Your task to perform on an android device: open chrome privacy settings Image 0: 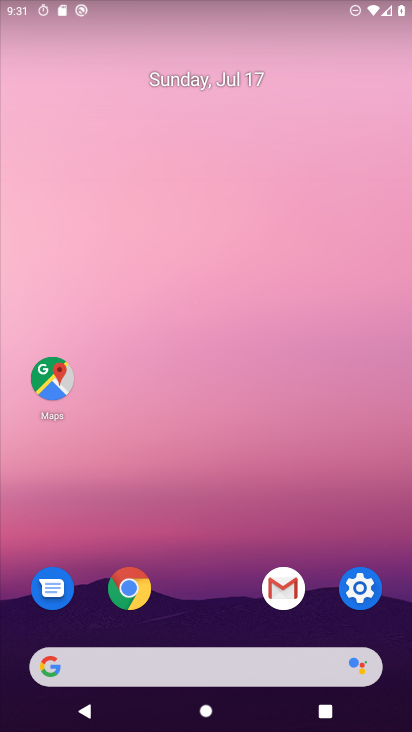
Step 0: click (122, 586)
Your task to perform on an android device: open chrome privacy settings Image 1: 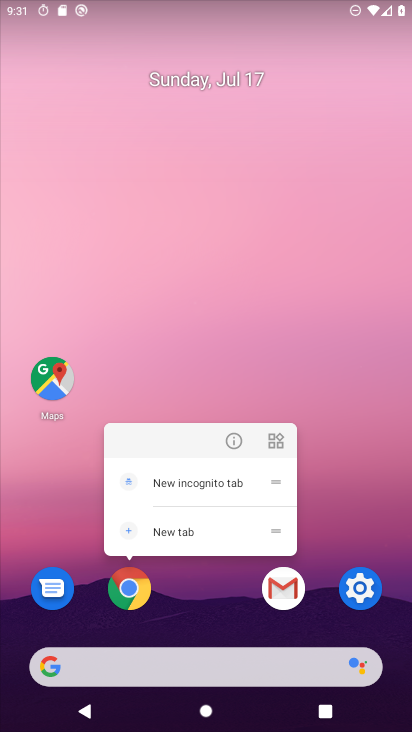
Step 1: click (146, 590)
Your task to perform on an android device: open chrome privacy settings Image 2: 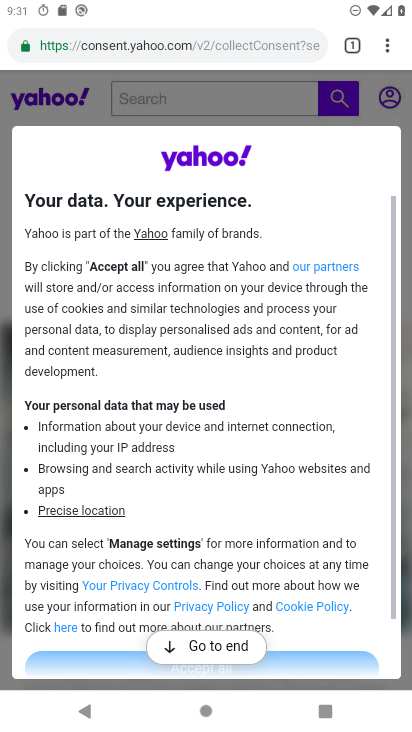
Step 2: click (386, 47)
Your task to perform on an android device: open chrome privacy settings Image 3: 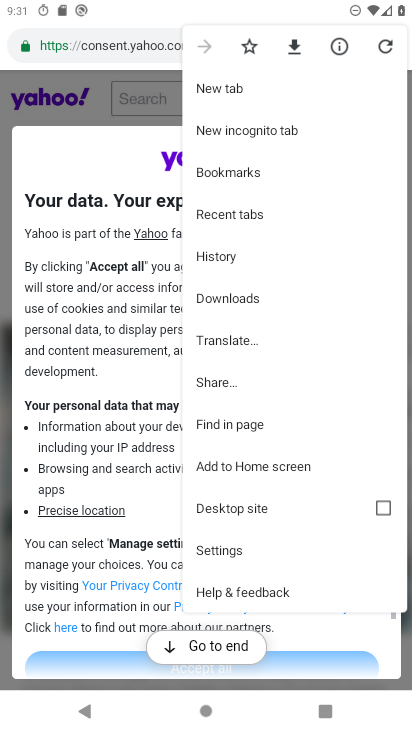
Step 3: click (239, 544)
Your task to perform on an android device: open chrome privacy settings Image 4: 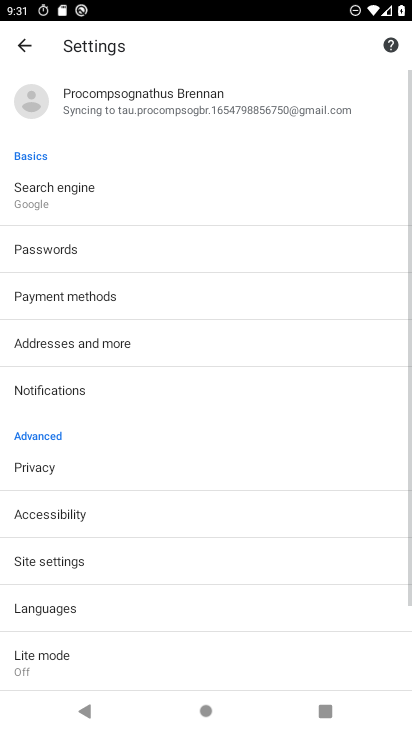
Step 4: click (58, 464)
Your task to perform on an android device: open chrome privacy settings Image 5: 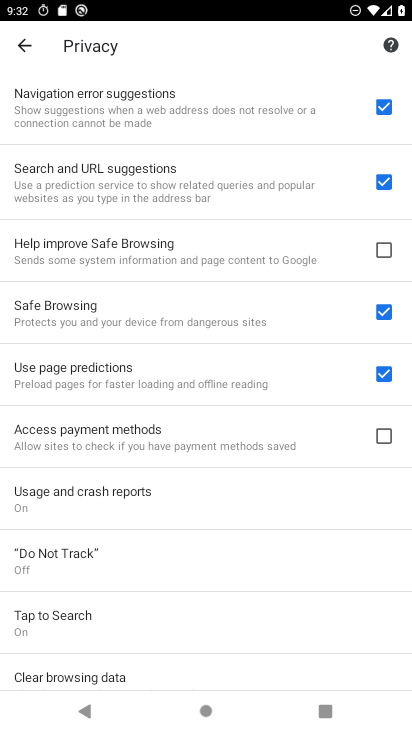
Step 5: task complete